Your task to perform on an android device: check data usage Image 0: 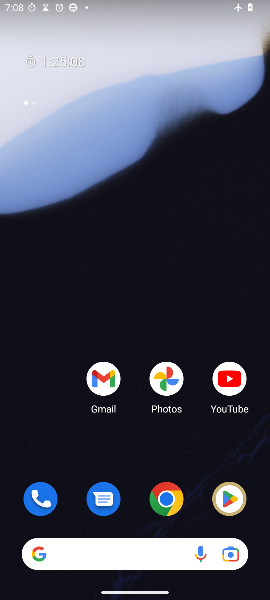
Step 0: drag from (54, 529) to (241, 78)
Your task to perform on an android device: check data usage Image 1: 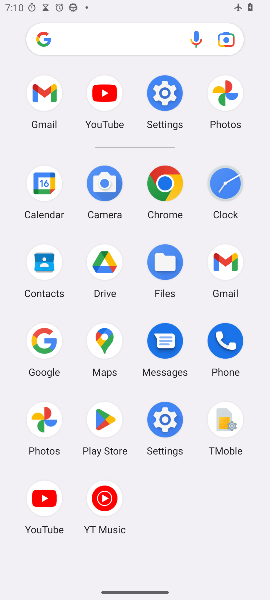
Step 1: click (166, 88)
Your task to perform on an android device: check data usage Image 2: 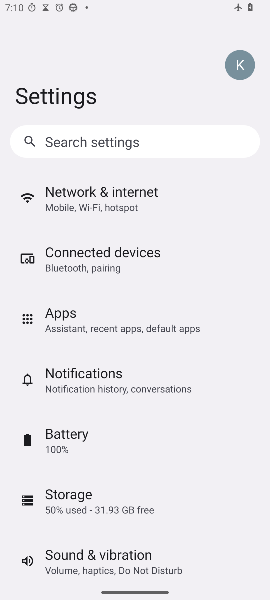
Step 2: click (62, 193)
Your task to perform on an android device: check data usage Image 3: 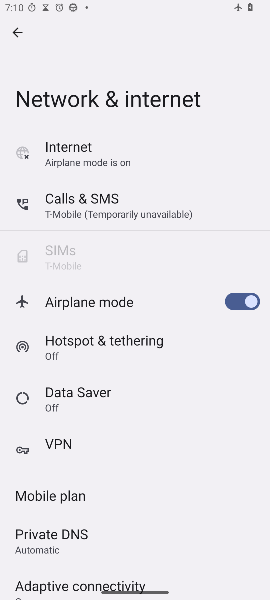
Step 3: task complete